Your task to perform on an android device: Open accessibility settings Image 0: 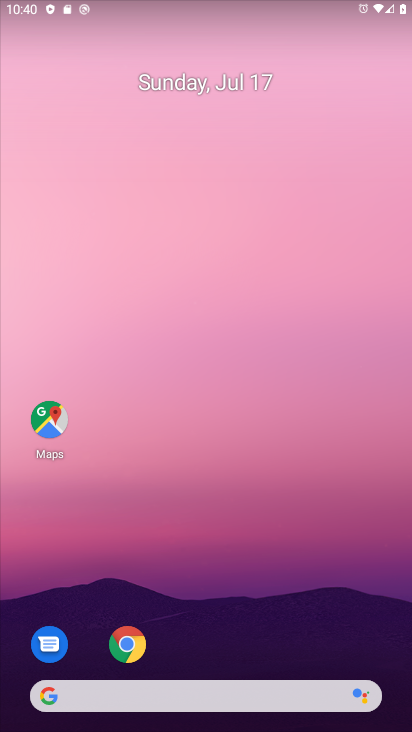
Step 0: drag from (289, 463) to (282, 4)
Your task to perform on an android device: Open accessibility settings Image 1: 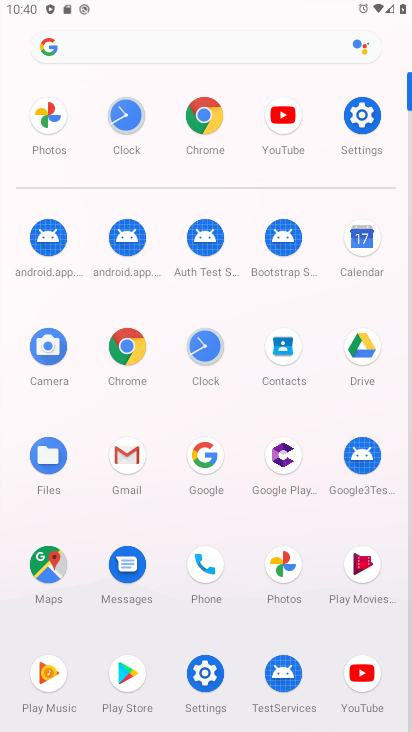
Step 1: click (360, 123)
Your task to perform on an android device: Open accessibility settings Image 2: 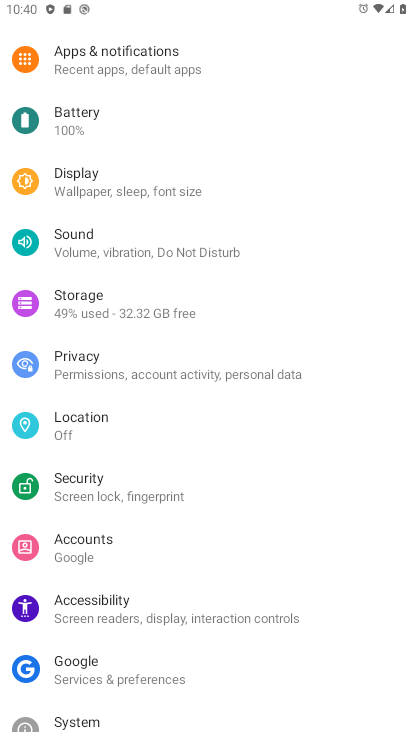
Step 2: click (138, 606)
Your task to perform on an android device: Open accessibility settings Image 3: 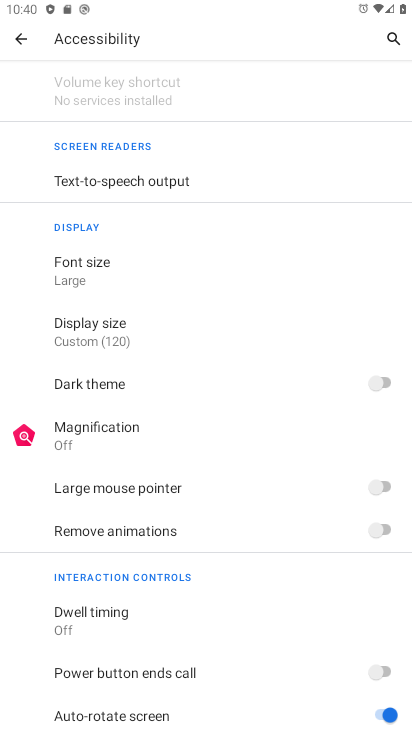
Step 3: task complete